Your task to perform on an android device: What is the recent news? Image 0: 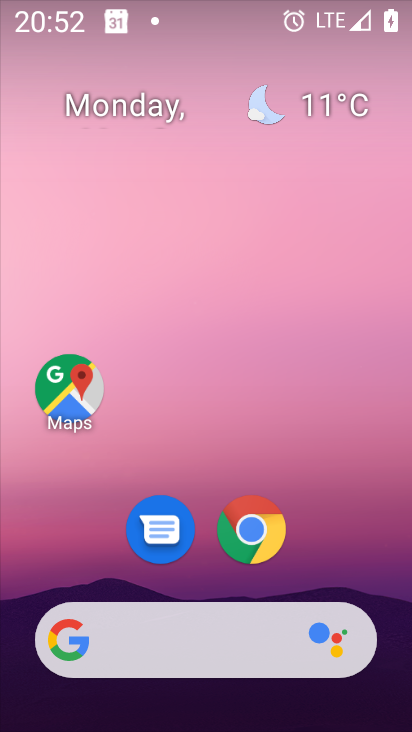
Step 0: drag from (6, 252) to (362, 191)
Your task to perform on an android device: What is the recent news? Image 1: 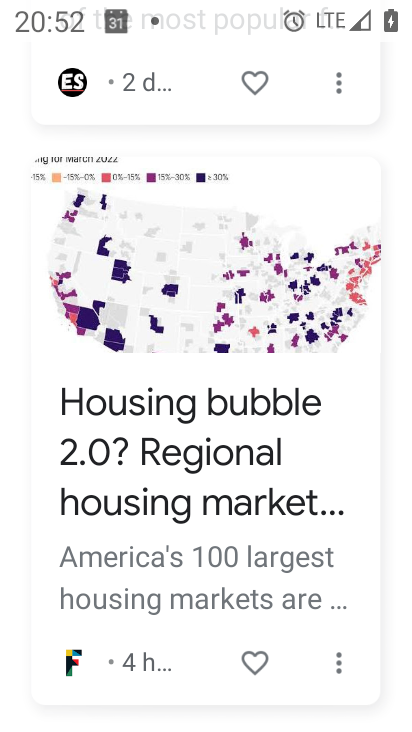
Step 1: task complete